Your task to perform on an android device: Go to internet settings Image 0: 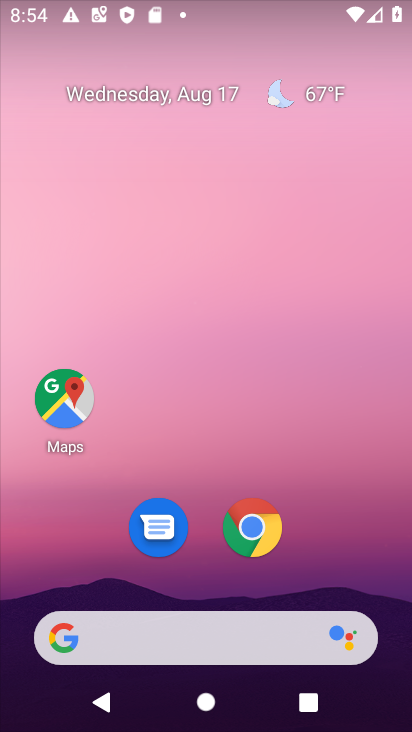
Step 0: drag from (298, 6) to (261, 641)
Your task to perform on an android device: Go to internet settings Image 1: 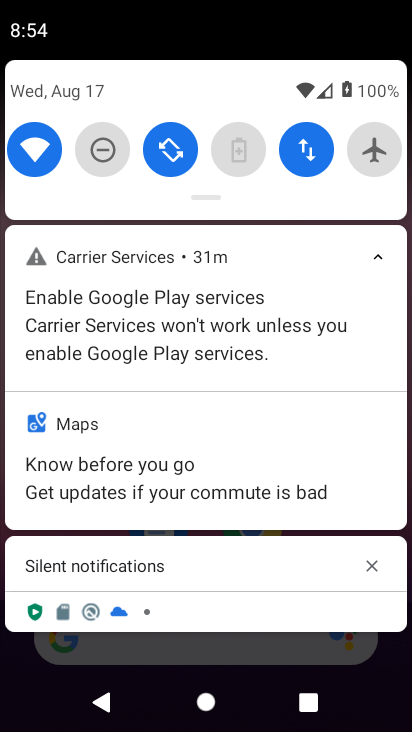
Step 1: click (310, 161)
Your task to perform on an android device: Go to internet settings Image 2: 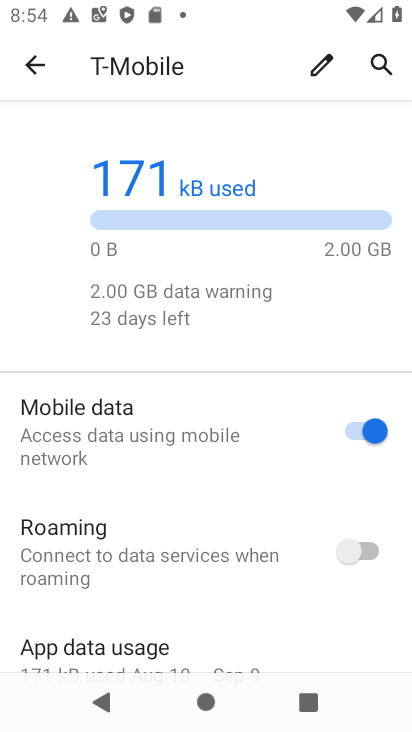
Step 2: task complete